Your task to perform on an android device: Turn off the flashlight Image 0: 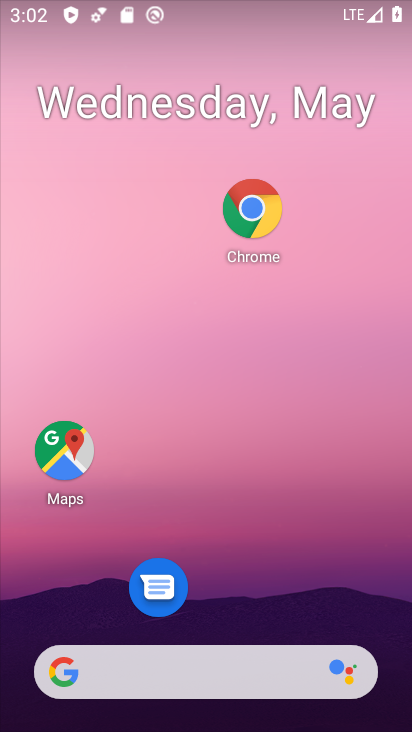
Step 0: drag from (291, 598) to (273, 82)
Your task to perform on an android device: Turn off the flashlight Image 1: 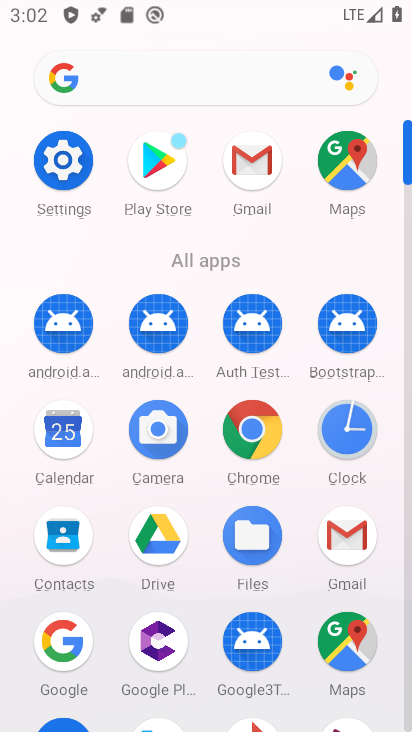
Step 1: click (71, 150)
Your task to perform on an android device: Turn off the flashlight Image 2: 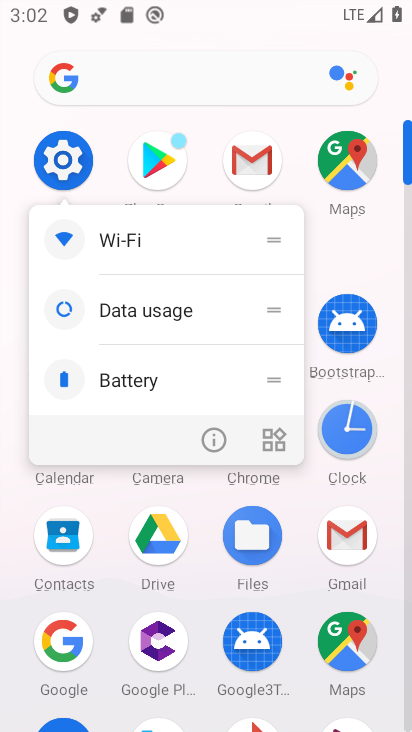
Step 2: click (49, 148)
Your task to perform on an android device: Turn off the flashlight Image 3: 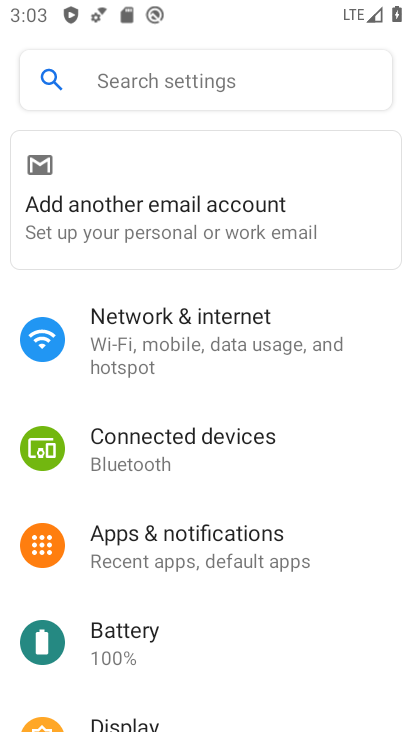
Step 3: task complete